Your task to perform on an android device: add a contact Image 0: 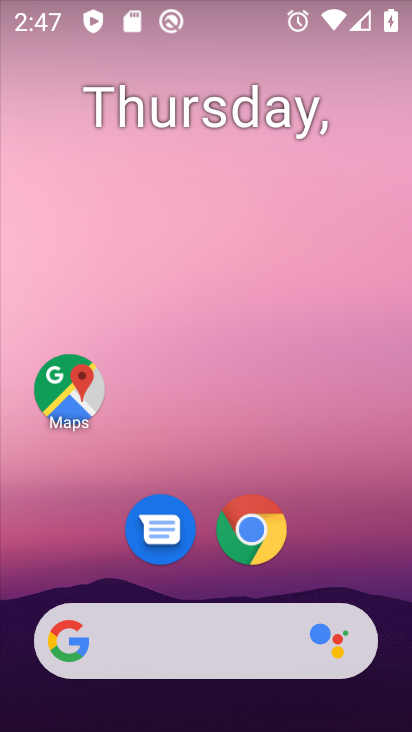
Step 0: drag from (236, 711) to (289, 141)
Your task to perform on an android device: add a contact Image 1: 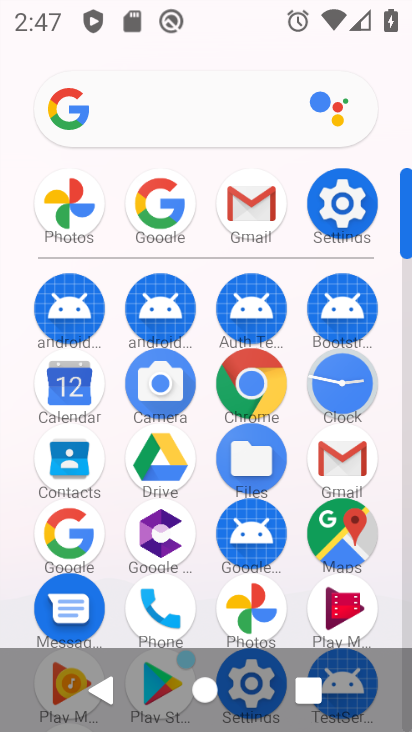
Step 1: click (78, 454)
Your task to perform on an android device: add a contact Image 2: 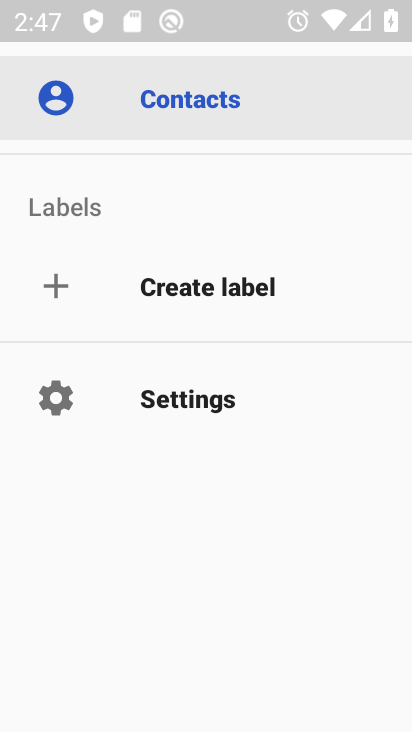
Step 2: press back button
Your task to perform on an android device: add a contact Image 3: 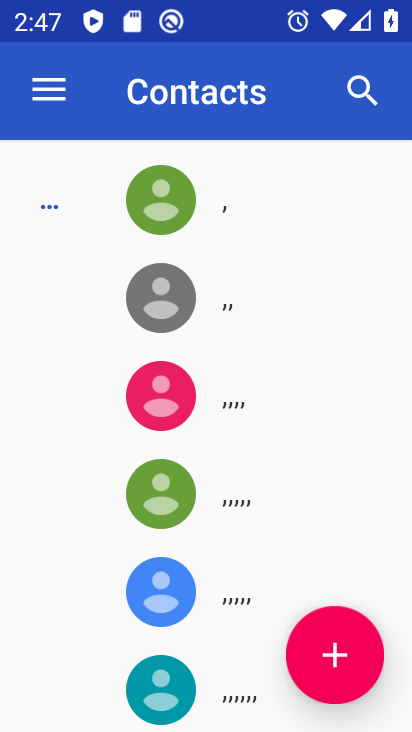
Step 3: click (346, 662)
Your task to perform on an android device: add a contact Image 4: 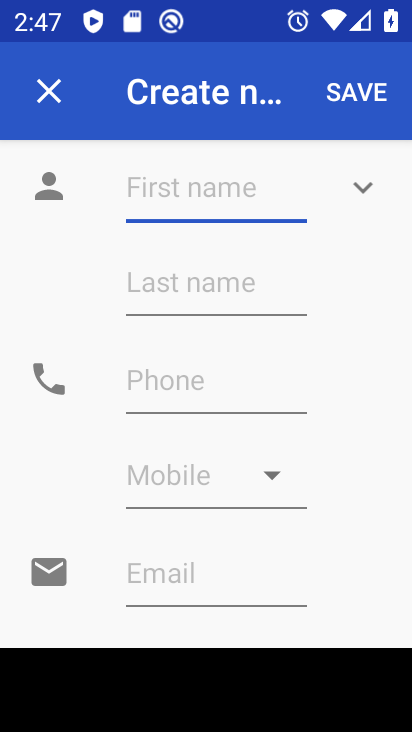
Step 4: type "hjchj"
Your task to perform on an android device: add a contact Image 5: 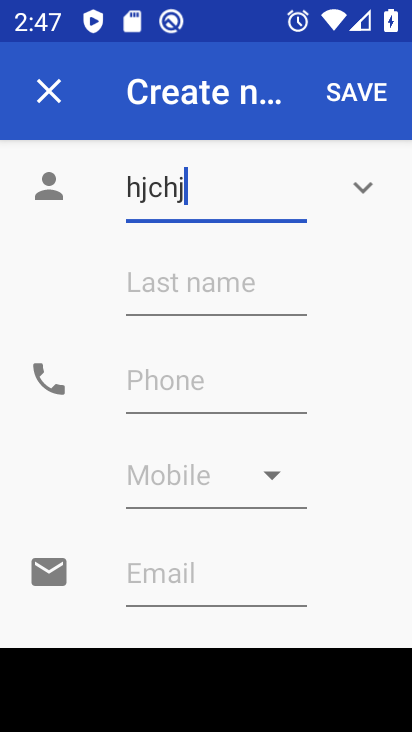
Step 5: click (226, 402)
Your task to perform on an android device: add a contact Image 6: 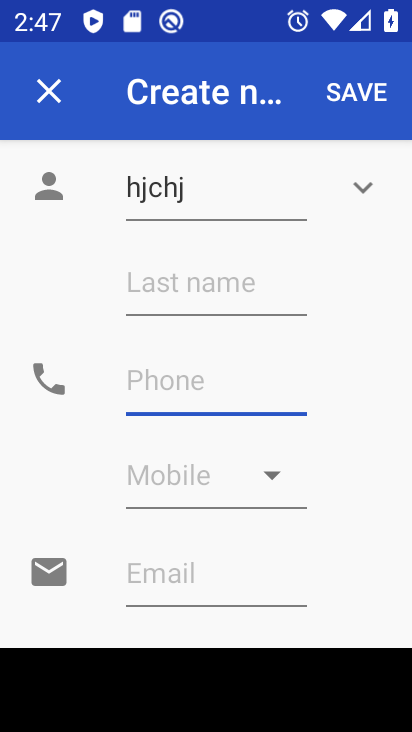
Step 6: type "8778"
Your task to perform on an android device: add a contact Image 7: 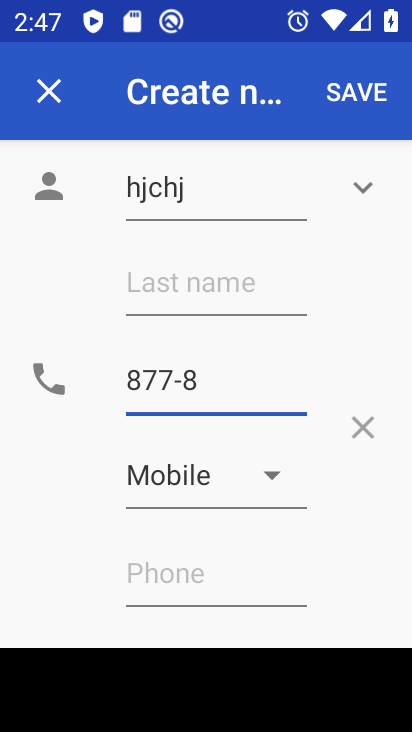
Step 7: click (355, 110)
Your task to perform on an android device: add a contact Image 8: 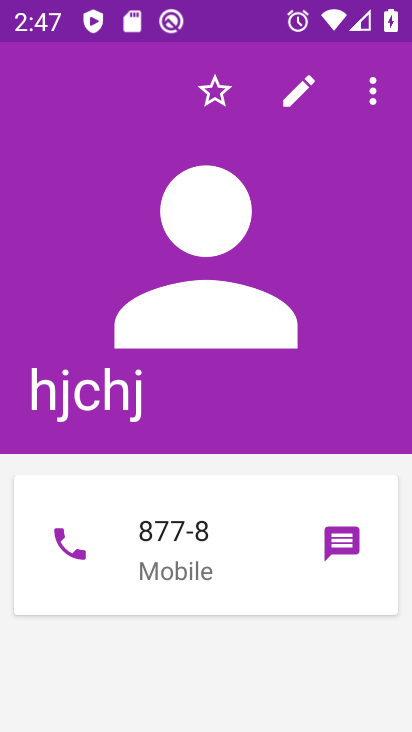
Step 8: task complete